Your task to perform on an android device: Open Android settings Image 0: 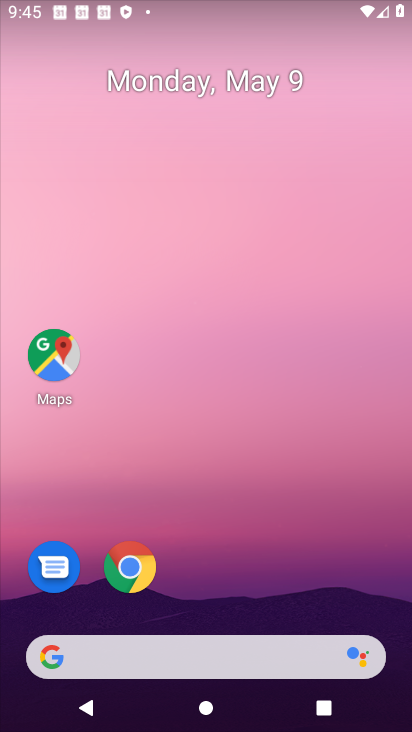
Step 0: drag from (201, 234) to (102, 6)
Your task to perform on an android device: Open Android settings Image 1: 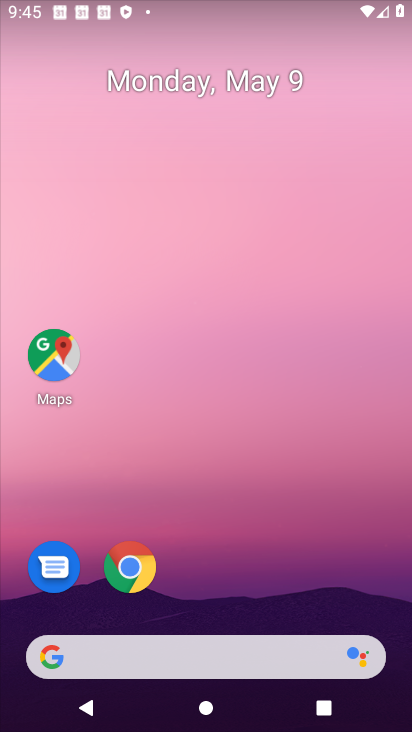
Step 1: drag from (185, 649) to (109, 3)
Your task to perform on an android device: Open Android settings Image 2: 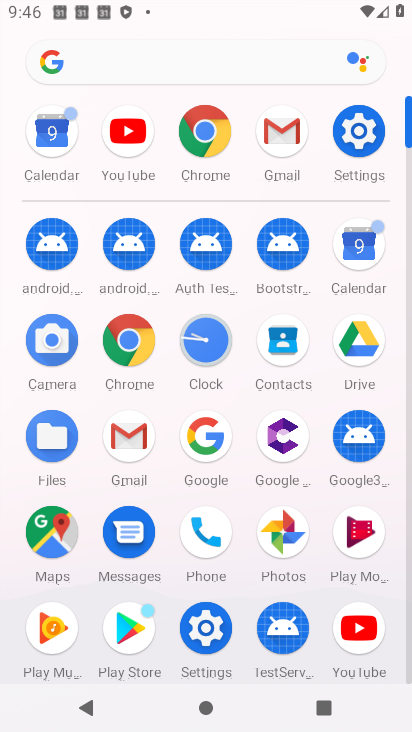
Step 2: click (352, 143)
Your task to perform on an android device: Open Android settings Image 3: 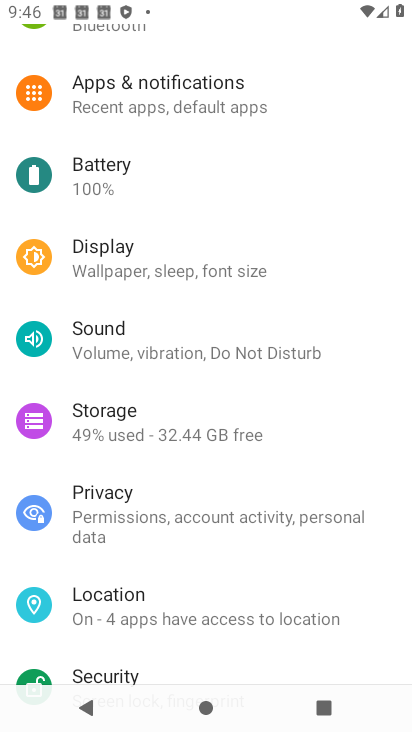
Step 3: drag from (227, 589) to (181, 11)
Your task to perform on an android device: Open Android settings Image 4: 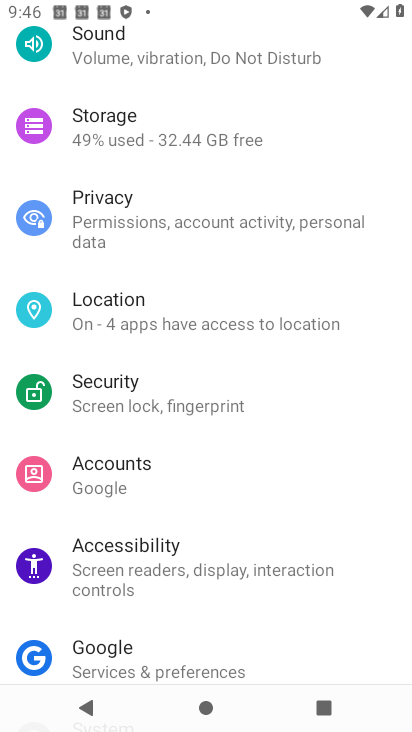
Step 4: drag from (214, 530) to (83, 36)
Your task to perform on an android device: Open Android settings Image 5: 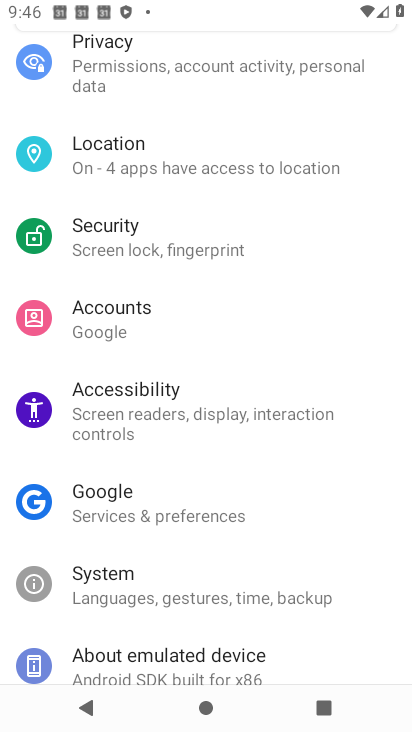
Step 5: click (185, 671)
Your task to perform on an android device: Open Android settings Image 6: 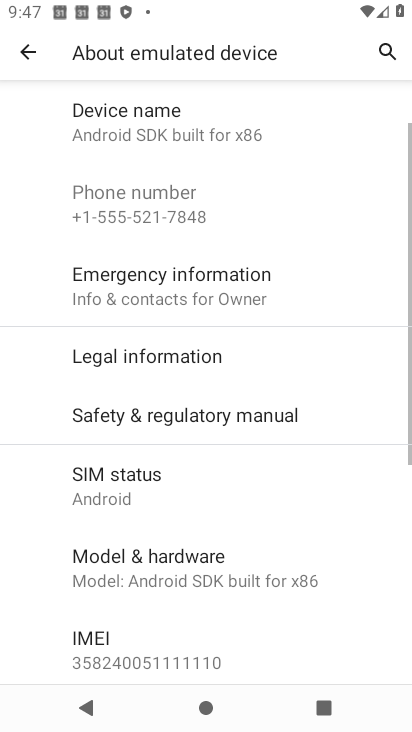
Step 6: drag from (173, 620) to (110, 158)
Your task to perform on an android device: Open Android settings Image 7: 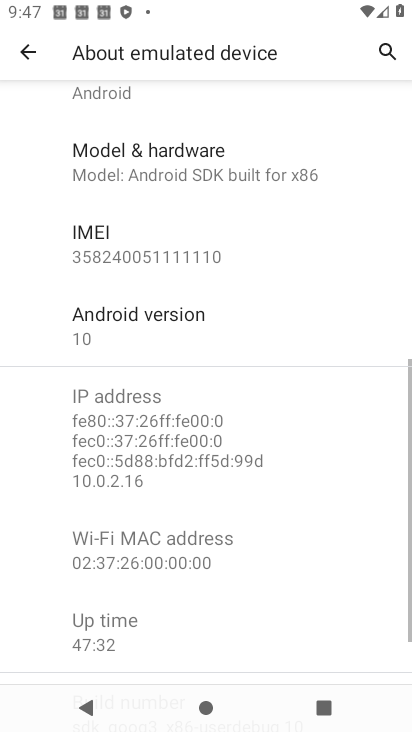
Step 7: click (133, 332)
Your task to perform on an android device: Open Android settings Image 8: 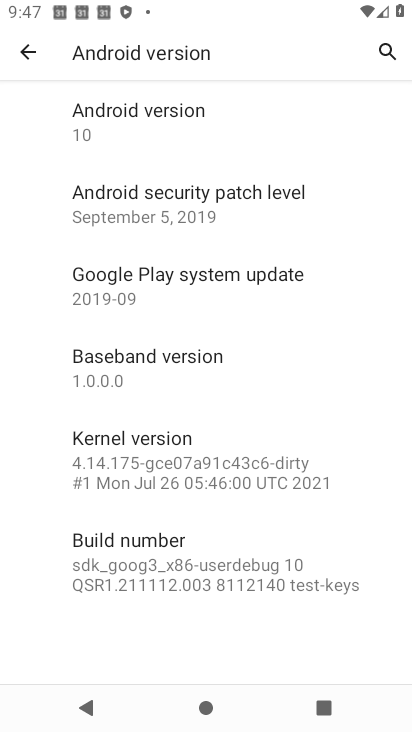
Step 8: task complete